Your task to perform on an android device: choose inbox layout in the gmail app Image 0: 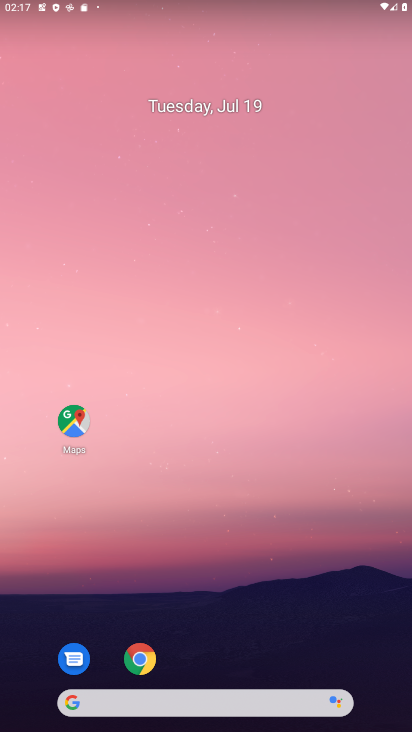
Step 0: press home button
Your task to perform on an android device: choose inbox layout in the gmail app Image 1: 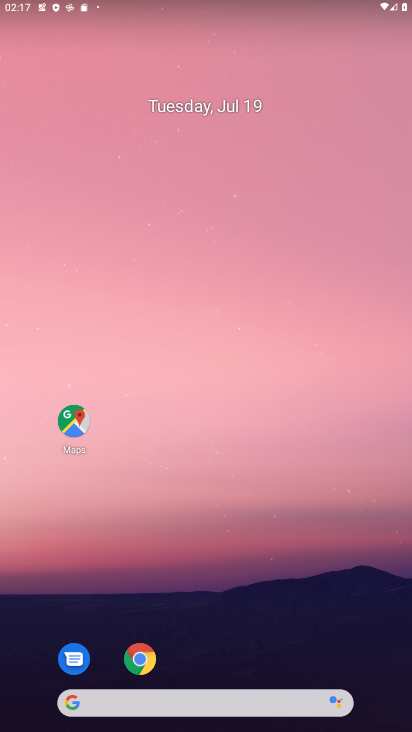
Step 1: drag from (330, 667) to (297, 186)
Your task to perform on an android device: choose inbox layout in the gmail app Image 2: 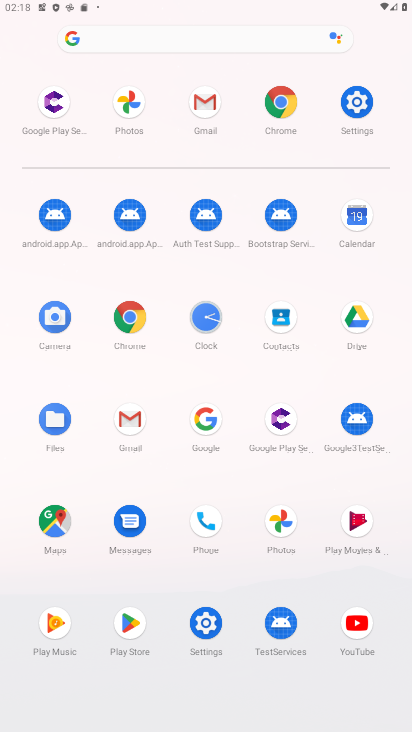
Step 2: click (114, 408)
Your task to perform on an android device: choose inbox layout in the gmail app Image 3: 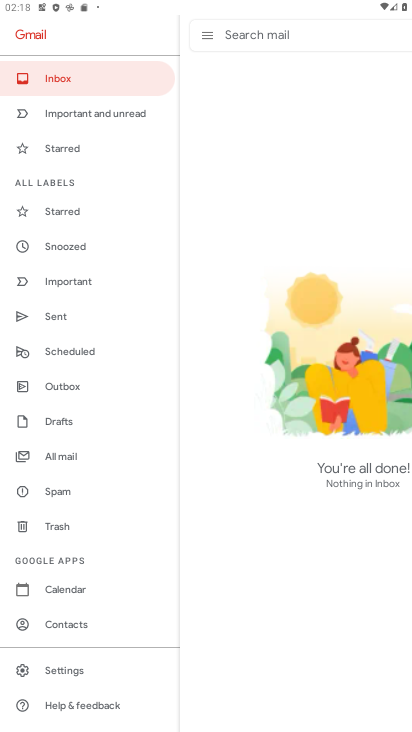
Step 3: click (64, 671)
Your task to perform on an android device: choose inbox layout in the gmail app Image 4: 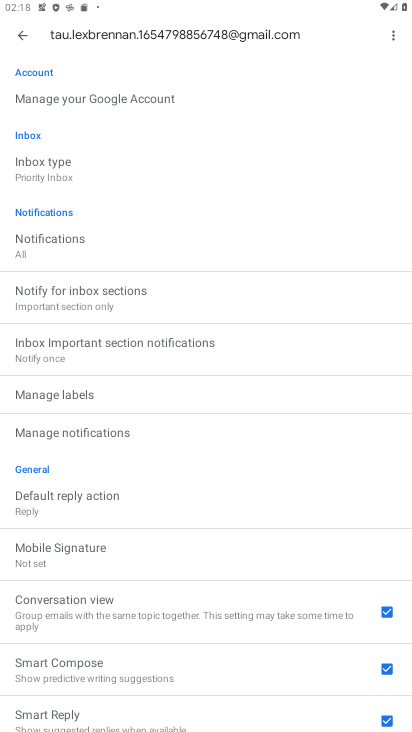
Step 4: click (59, 185)
Your task to perform on an android device: choose inbox layout in the gmail app Image 5: 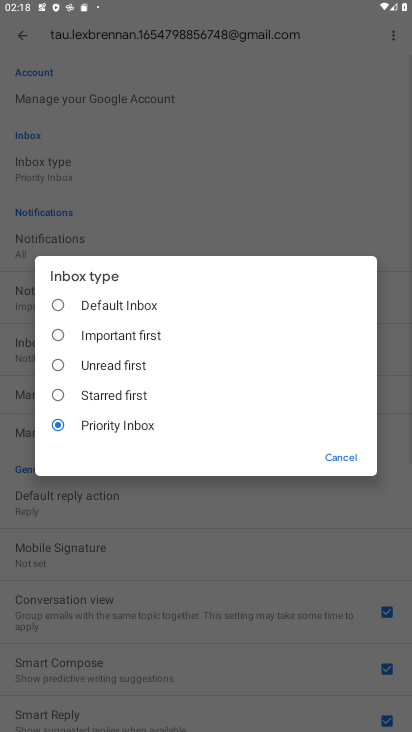
Step 5: click (84, 386)
Your task to perform on an android device: choose inbox layout in the gmail app Image 6: 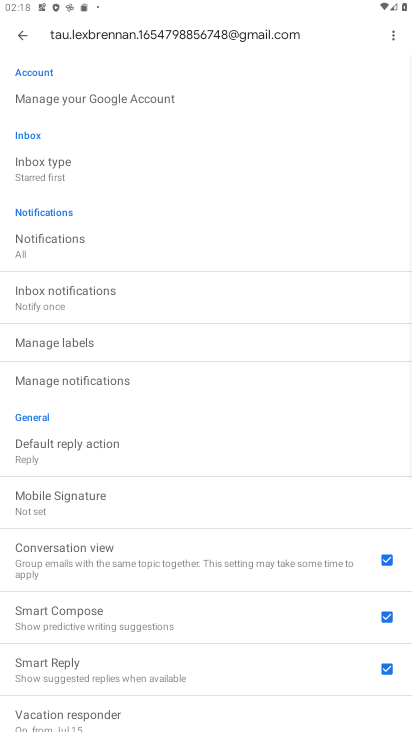
Step 6: task complete